Your task to perform on an android device: turn on location history Image 0: 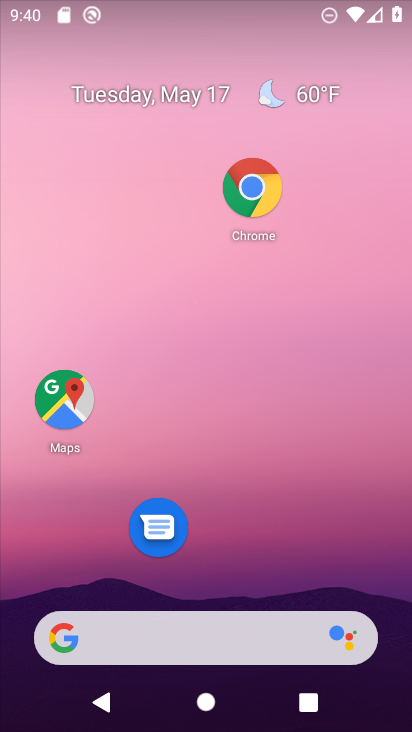
Step 0: drag from (279, 578) to (271, 130)
Your task to perform on an android device: turn on location history Image 1: 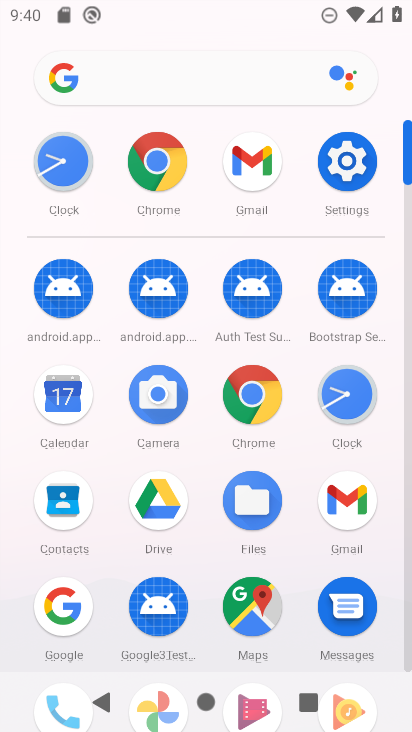
Step 1: click (344, 166)
Your task to perform on an android device: turn on location history Image 2: 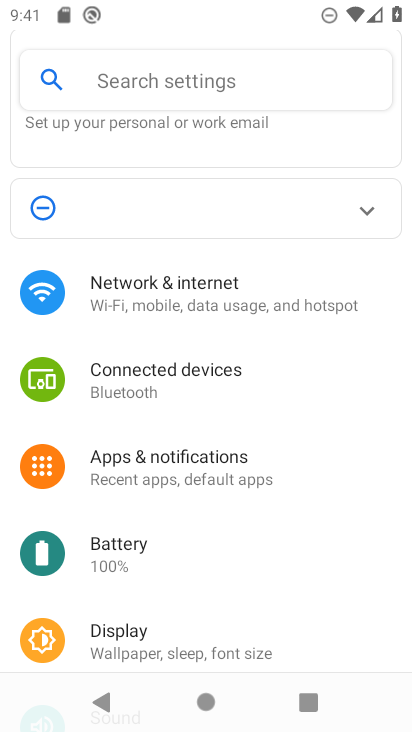
Step 2: drag from (233, 526) to (273, 260)
Your task to perform on an android device: turn on location history Image 3: 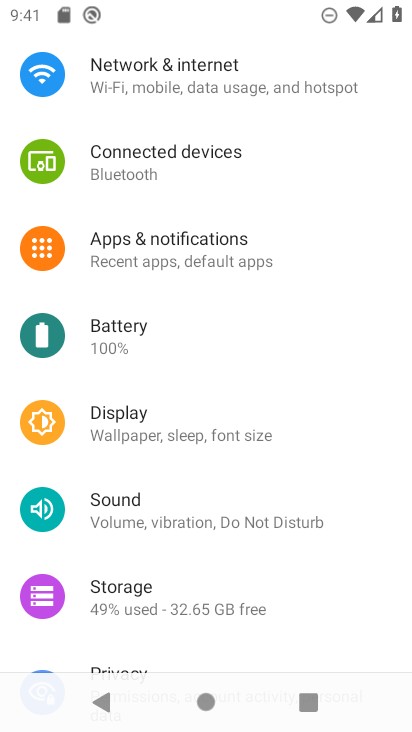
Step 3: drag from (218, 568) to (275, 189)
Your task to perform on an android device: turn on location history Image 4: 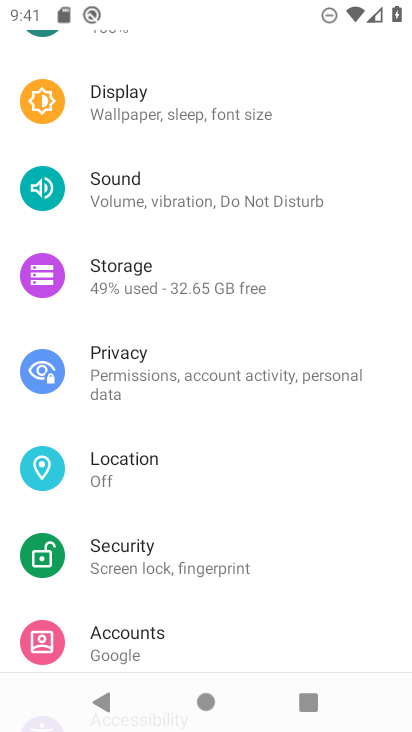
Step 4: click (271, 478)
Your task to perform on an android device: turn on location history Image 5: 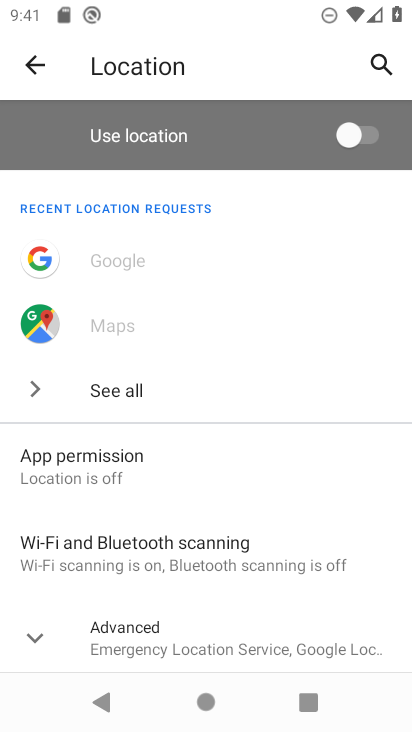
Step 5: drag from (232, 587) to (272, 265)
Your task to perform on an android device: turn on location history Image 6: 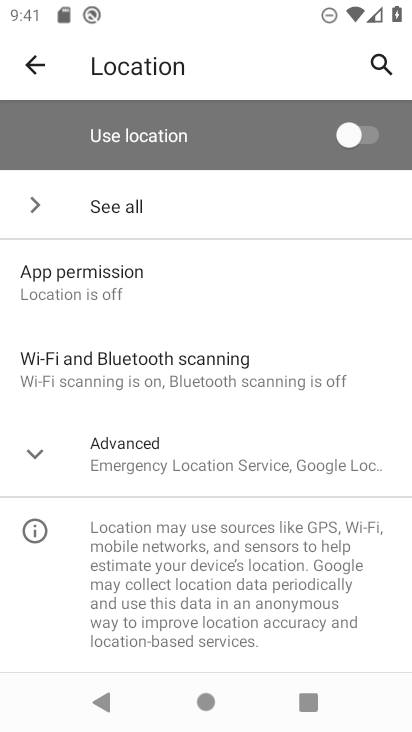
Step 6: drag from (205, 504) to (206, 455)
Your task to perform on an android device: turn on location history Image 7: 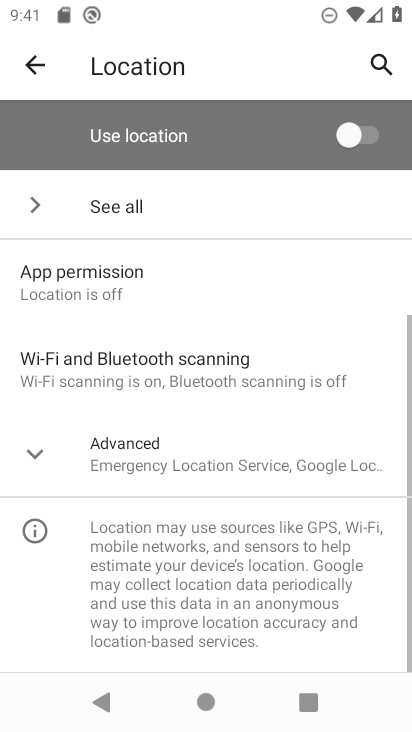
Step 7: click (206, 455)
Your task to perform on an android device: turn on location history Image 8: 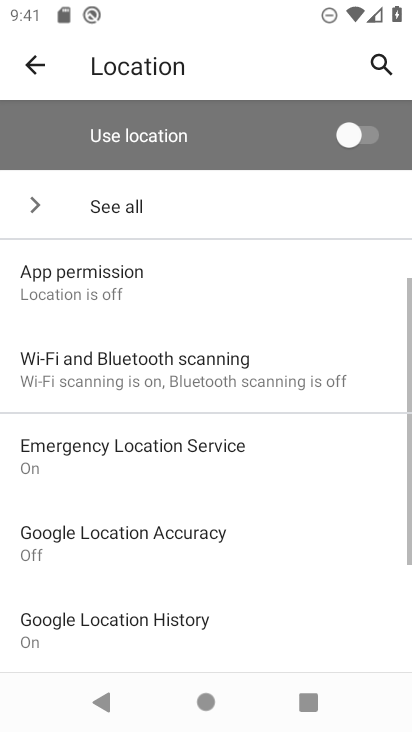
Step 8: task complete